Your task to perform on an android device: Go to sound settings Image 0: 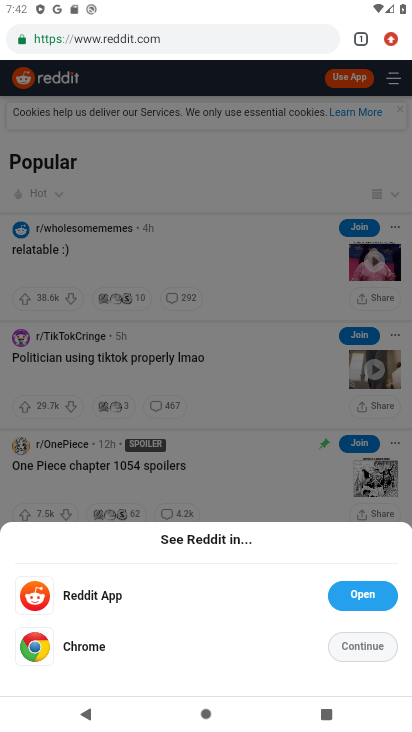
Step 0: press home button
Your task to perform on an android device: Go to sound settings Image 1: 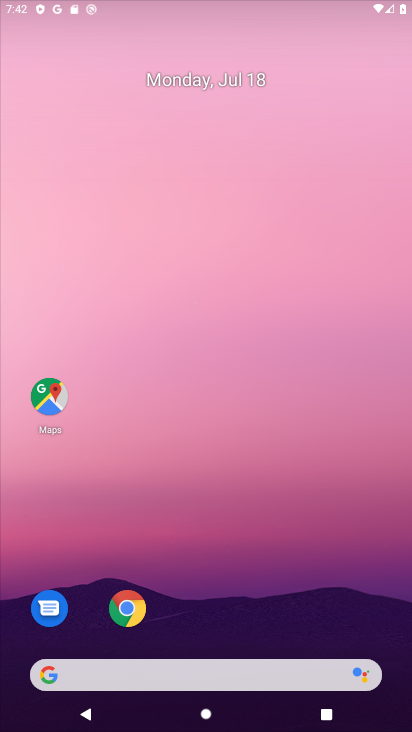
Step 1: drag from (198, 638) to (200, 178)
Your task to perform on an android device: Go to sound settings Image 2: 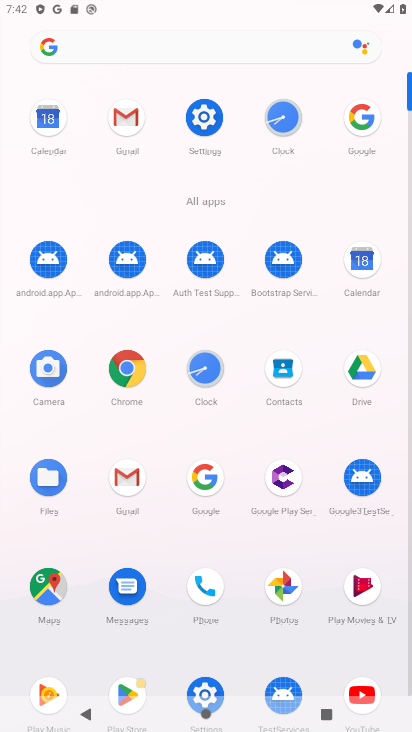
Step 2: click (204, 121)
Your task to perform on an android device: Go to sound settings Image 3: 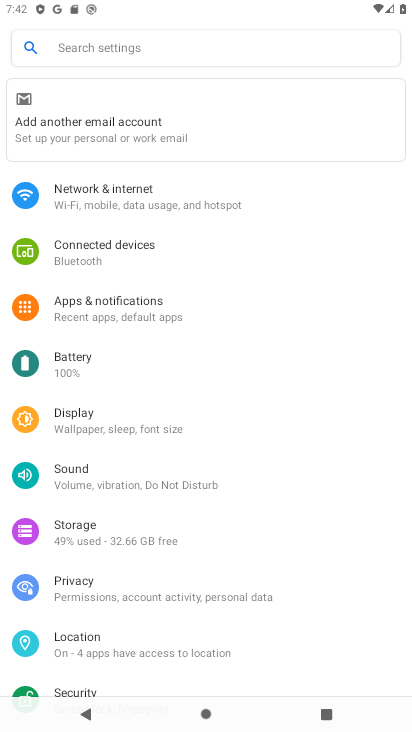
Step 3: click (81, 476)
Your task to perform on an android device: Go to sound settings Image 4: 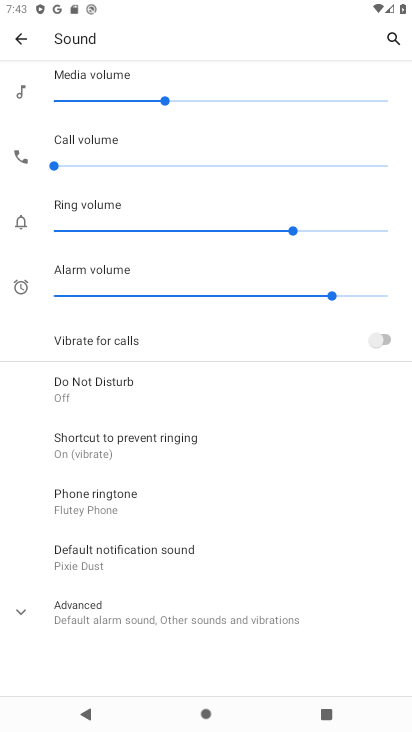
Step 4: task complete